Your task to perform on an android device: turn on sleep mode Image 0: 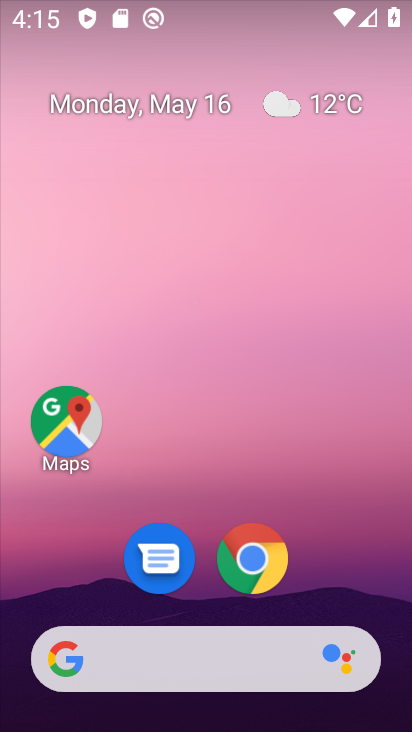
Step 0: drag from (354, 542) to (375, 88)
Your task to perform on an android device: turn on sleep mode Image 1: 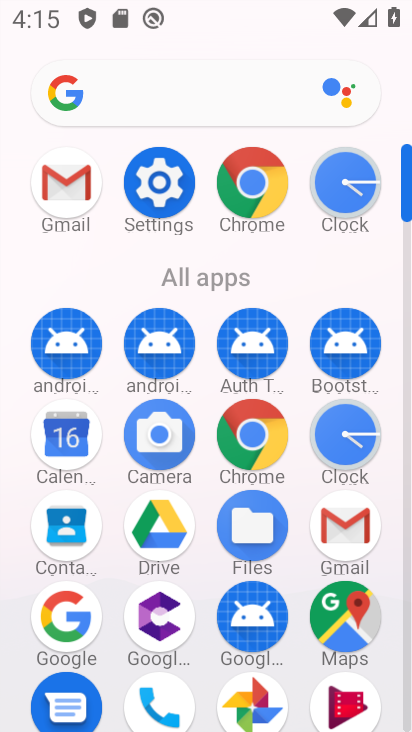
Step 1: click (176, 189)
Your task to perform on an android device: turn on sleep mode Image 2: 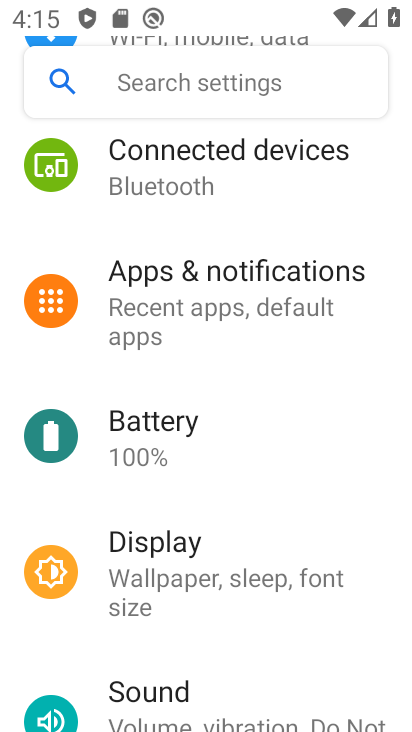
Step 2: click (194, 595)
Your task to perform on an android device: turn on sleep mode Image 3: 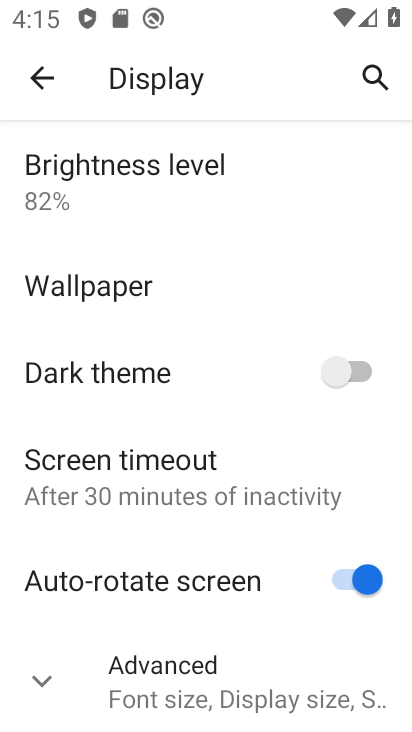
Step 3: click (41, 682)
Your task to perform on an android device: turn on sleep mode Image 4: 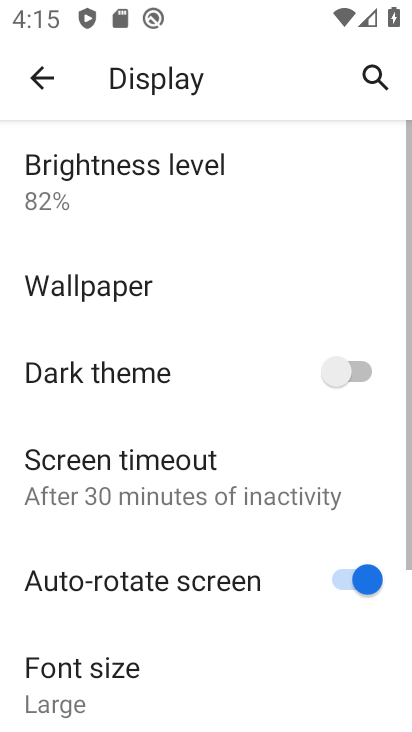
Step 4: task complete